Your task to perform on an android device: empty trash in the gmail app Image 0: 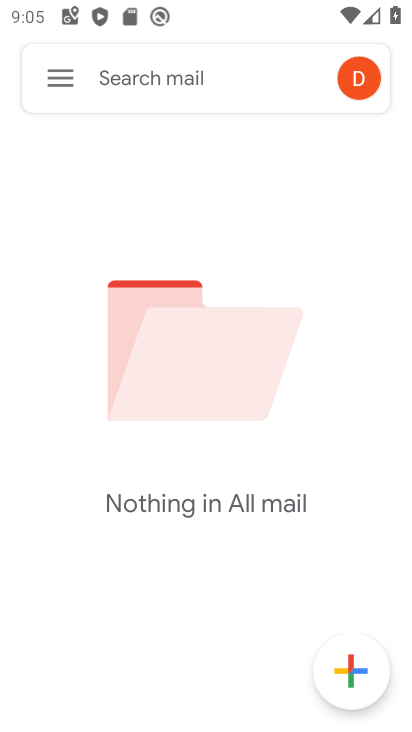
Step 0: press home button
Your task to perform on an android device: empty trash in the gmail app Image 1: 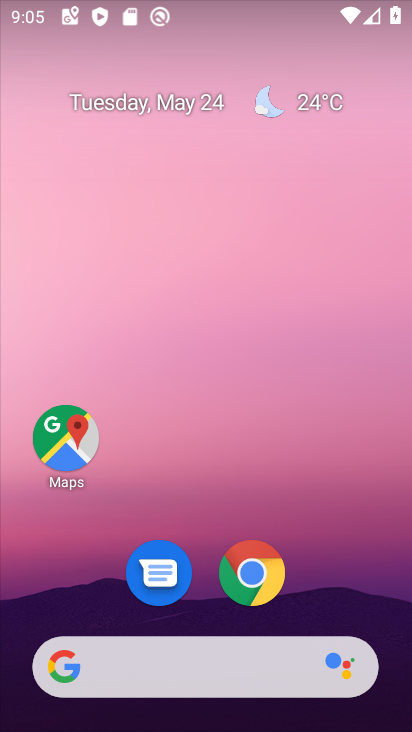
Step 1: drag from (98, 593) to (252, 195)
Your task to perform on an android device: empty trash in the gmail app Image 2: 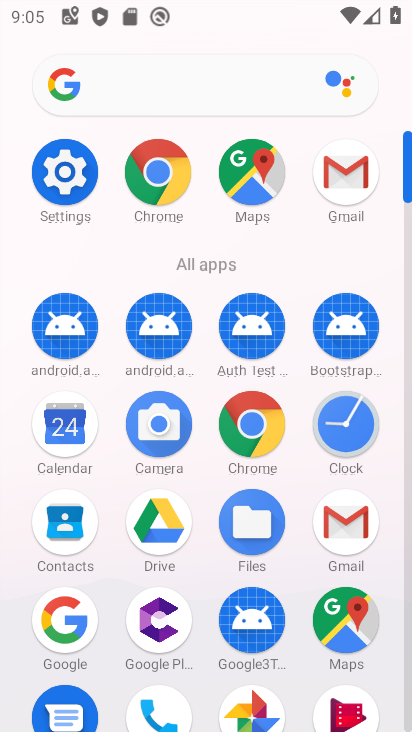
Step 2: click (334, 189)
Your task to perform on an android device: empty trash in the gmail app Image 3: 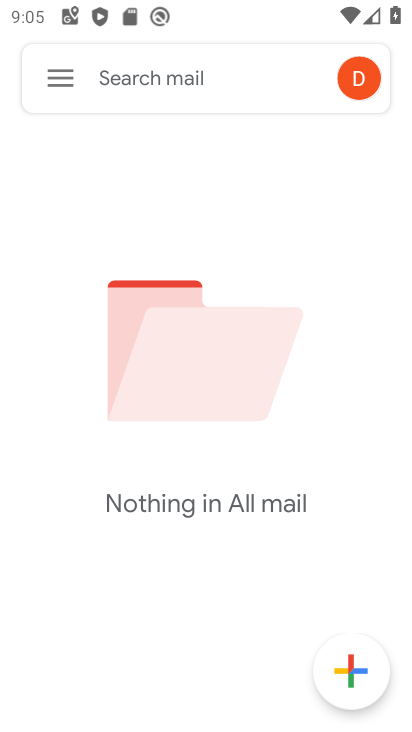
Step 3: click (56, 86)
Your task to perform on an android device: empty trash in the gmail app Image 4: 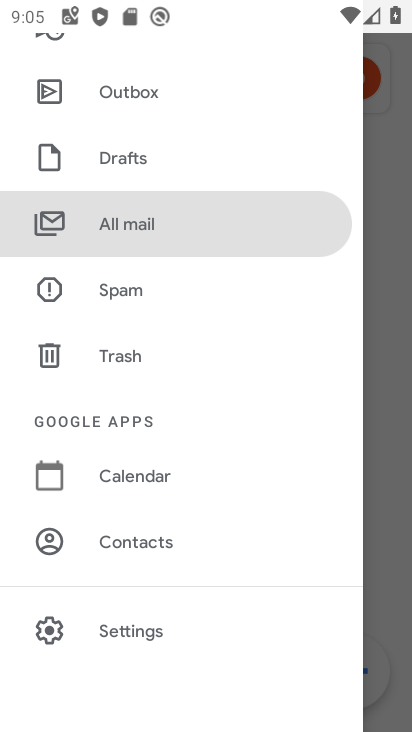
Step 4: click (154, 364)
Your task to perform on an android device: empty trash in the gmail app Image 5: 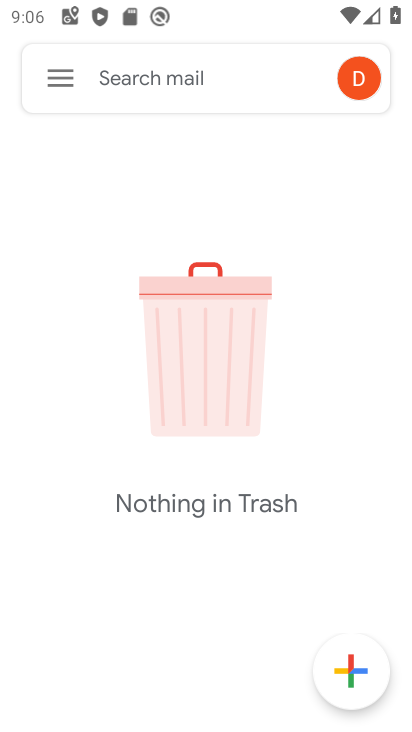
Step 5: task complete